Your task to perform on an android device: Go to location settings Image 0: 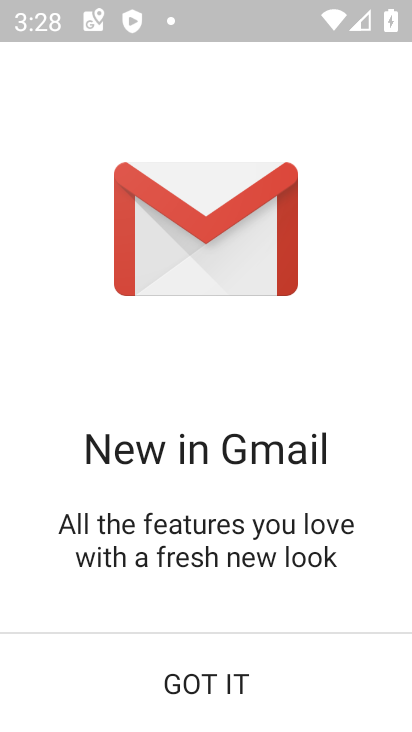
Step 0: press home button
Your task to perform on an android device: Go to location settings Image 1: 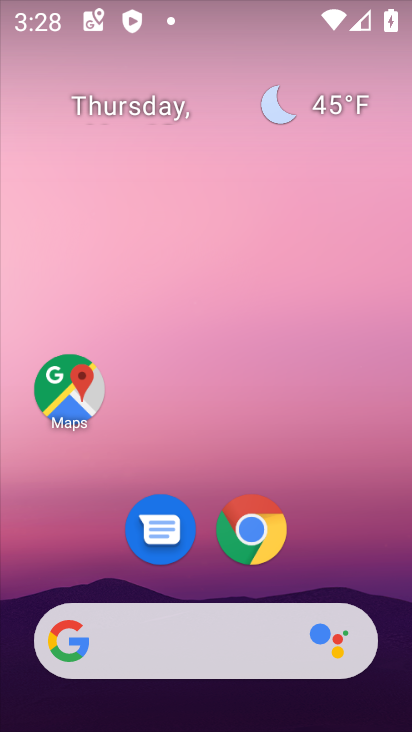
Step 1: drag from (328, 532) to (246, 1)
Your task to perform on an android device: Go to location settings Image 2: 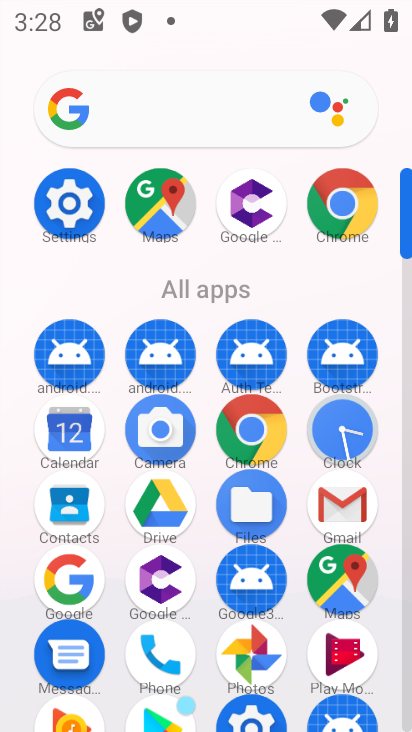
Step 2: click (73, 207)
Your task to perform on an android device: Go to location settings Image 3: 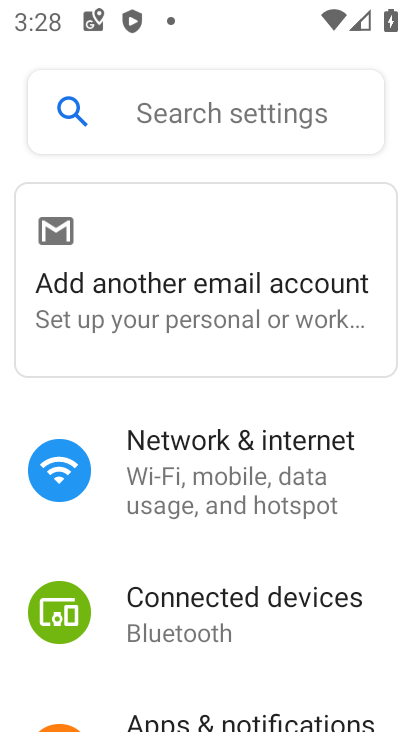
Step 3: drag from (215, 576) to (258, 156)
Your task to perform on an android device: Go to location settings Image 4: 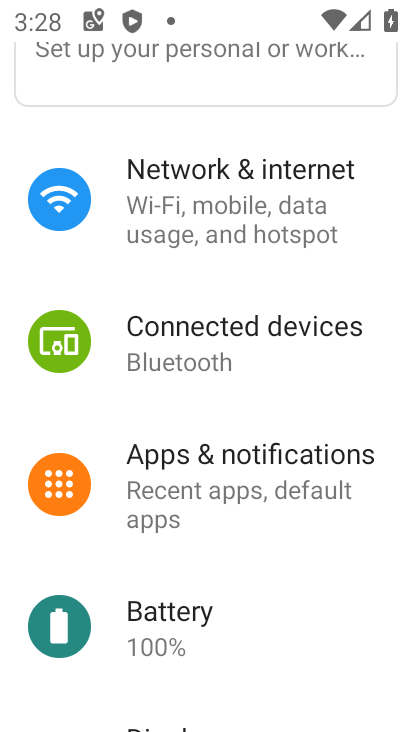
Step 4: drag from (252, 581) to (277, 127)
Your task to perform on an android device: Go to location settings Image 5: 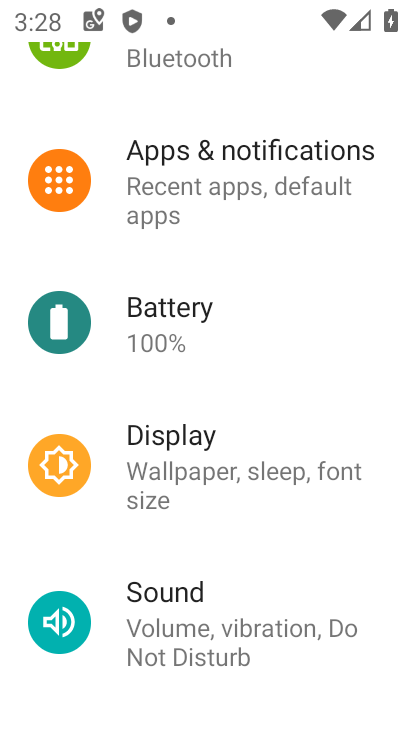
Step 5: drag from (246, 632) to (272, 244)
Your task to perform on an android device: Go to location settings Image 6: 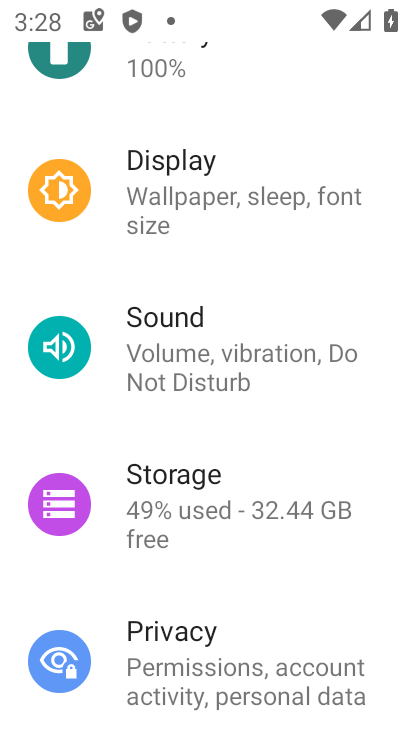
Step 6: drag from (239, 588) to (294, 54)
Your task to perform on an android device: Go to location settings Image 7: 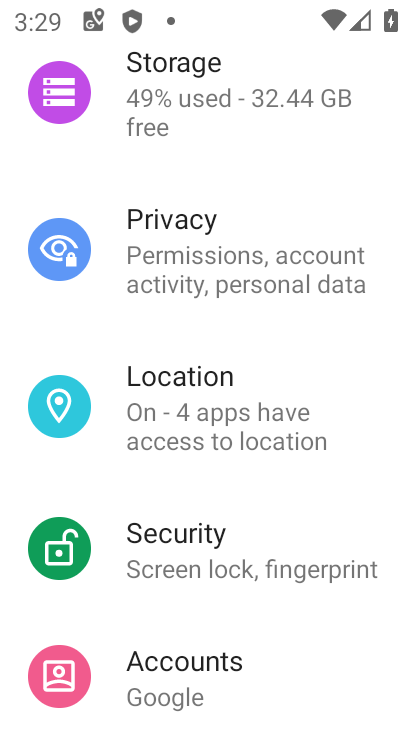
Step 7: click (173, 401)
Your task to perform on an android device: Go to location settings Image 8: 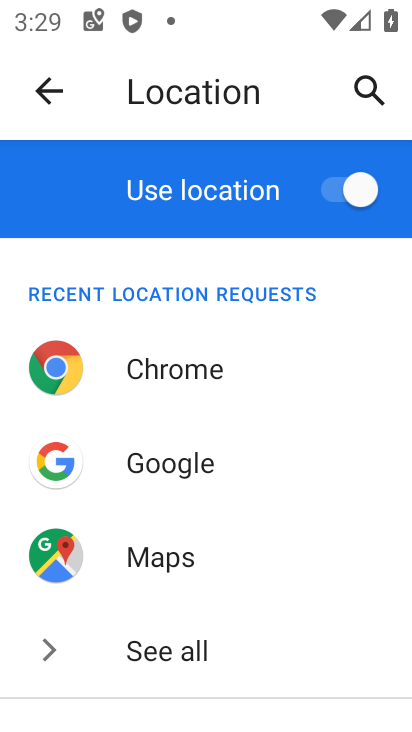
Step 8: drag from (240, 628) to (275, 169)
Your task to perform on an android device: Go to location settings Image 9: 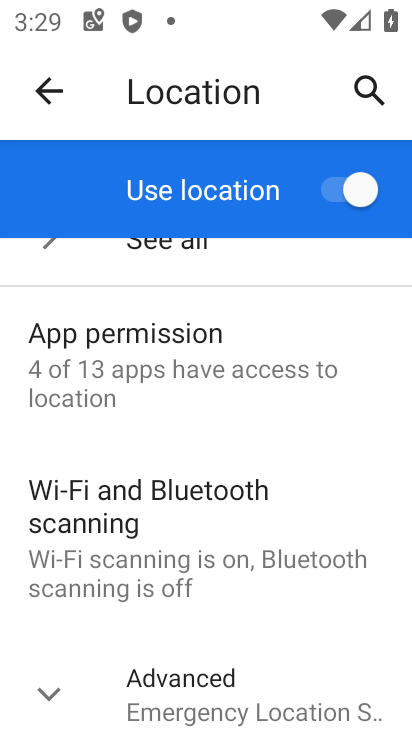
Step 9: drag from (178, 594) to (220, 211)
Your task to perform on an android device: Go to location settings Image 10: 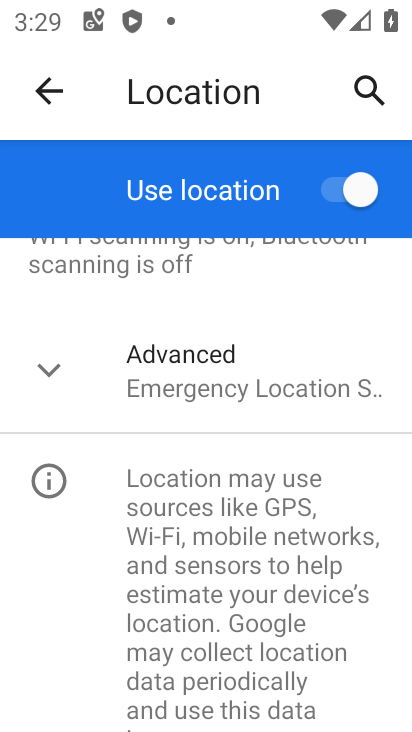
Step 10: click (280, 696)
Your task to perform on an android device: Go to location settings Image 11: 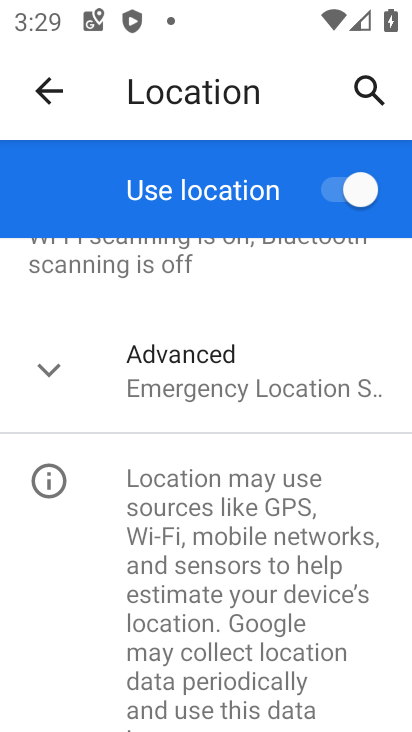
Step 11: task complete